Your task to perform on an android device: Show me popular videos on Youtube Image 0: 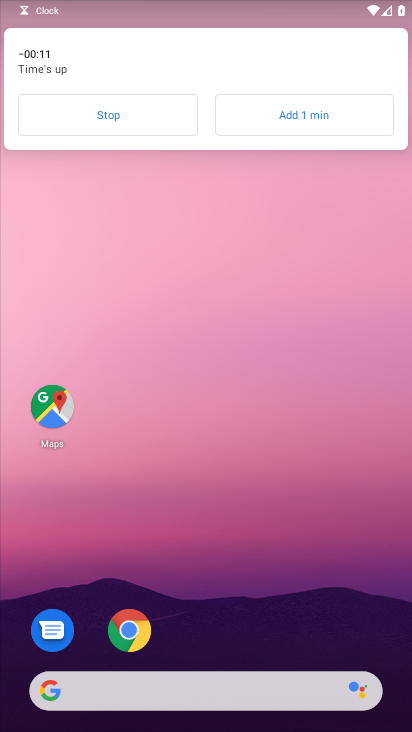
Step 0: click (138, 95)
Your task to perform on an android device: Show me popular videos on Youtube Image 1: 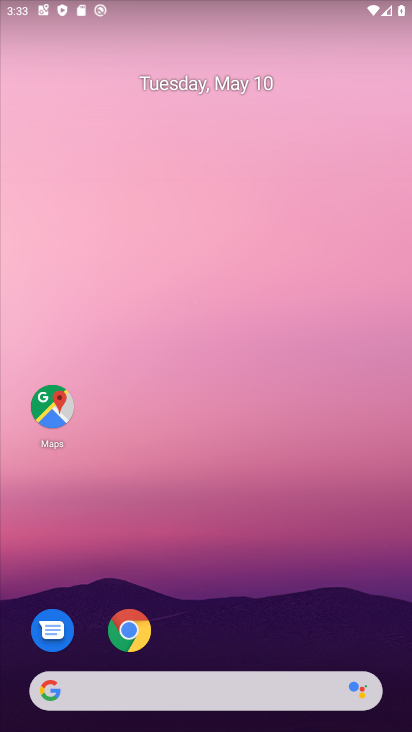
Step 1: drag from (203, 648) to (312, 116)
Your task to perform on an android device: Show me popular videos on Youtube Image 2: 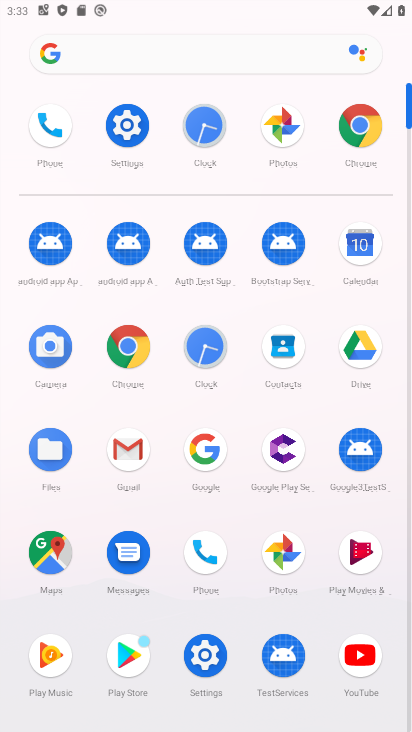
Step 2: click (364, 661)
Your task to perform on an android device: Show me popular videos on Youtube Image 3: 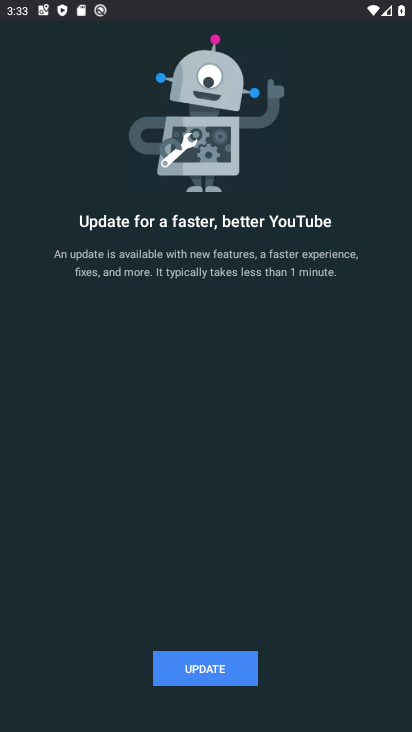
Step 3: click (253, 667)
Your task to perform on an android device: Show me popular videos on Youtube Image 4: 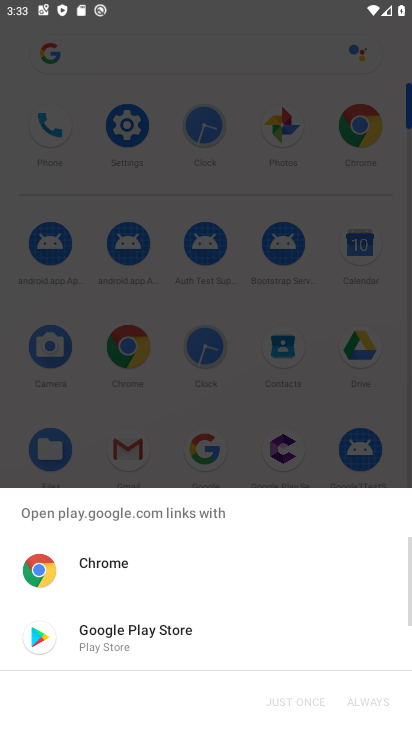
Step 4: click (188, 639)
Your task to perform on an android device: Show me popular videos on Youtube Image 5: 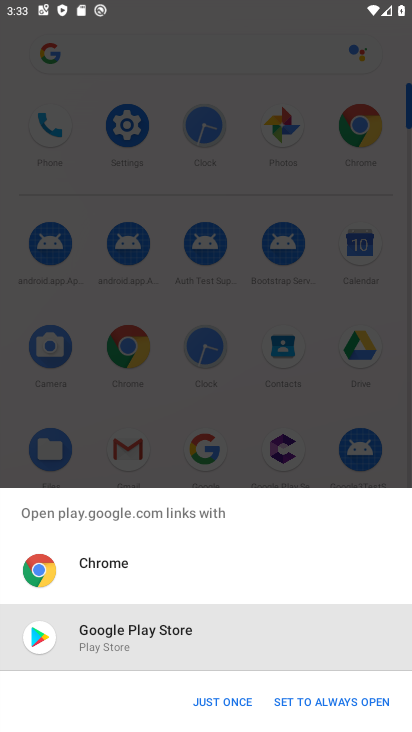
Step 5: click (234, 690)
Your task to perform on an android device: Show me popular videos on Youtube Image 6: 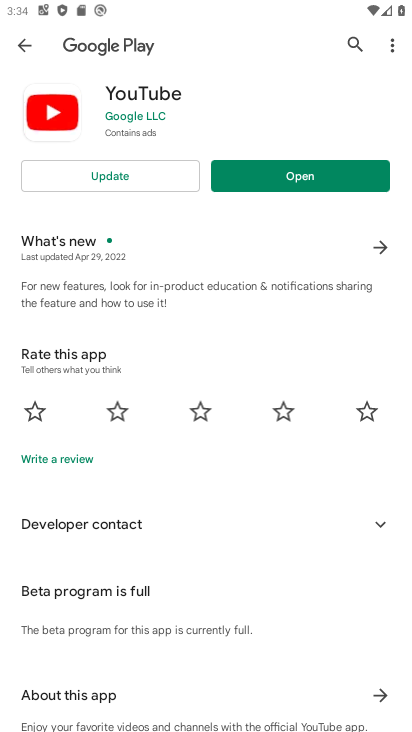
Step 6: drag from (126, 661) to (184, 400)
Your task to perform on an android device: Show me popular videos on Youtube Image 7: 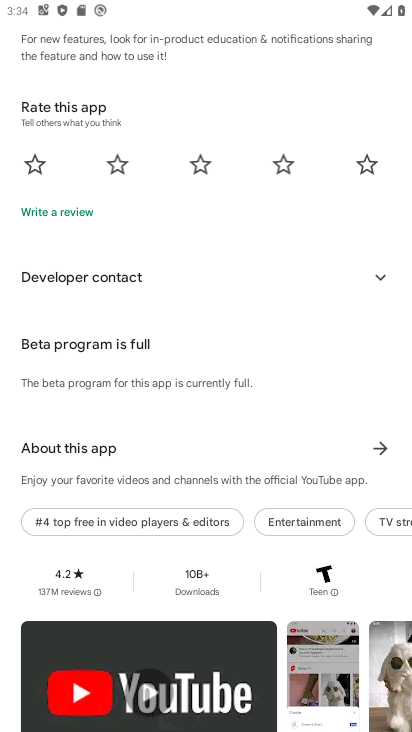
Step 7: drag from (154, 319) to (122, 720)
Your task to perform on an android device: Show me popular videos on Youtube Image 8: 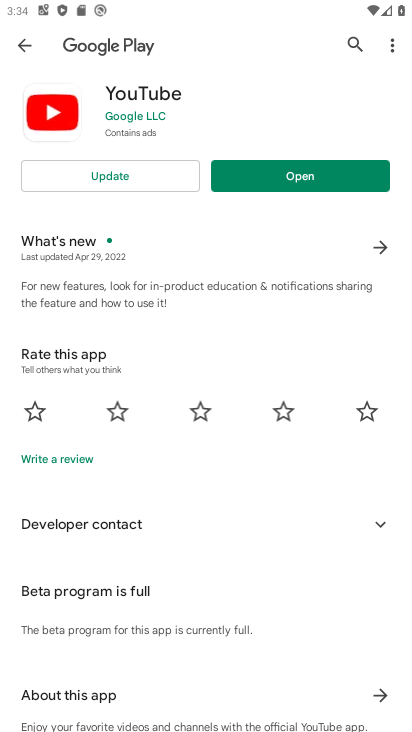
Step 8: click (276, 183)
Your task to perform on an android device: Show me popular videos on Youtube Image 9: 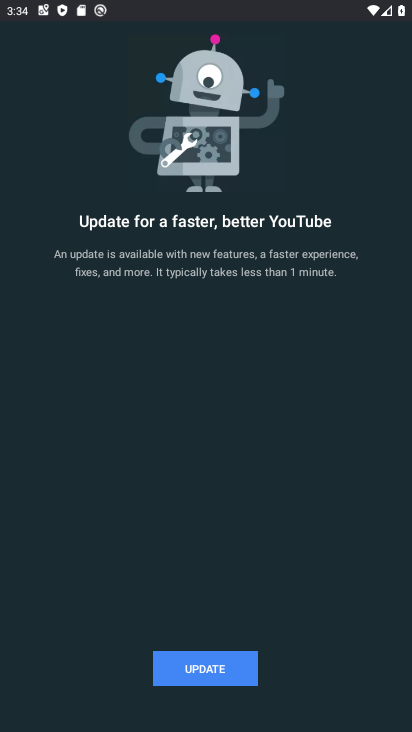
Step 9: click (226, 669)
Your task to perform on an android device: Show me popular videos on Youtube Image 10: 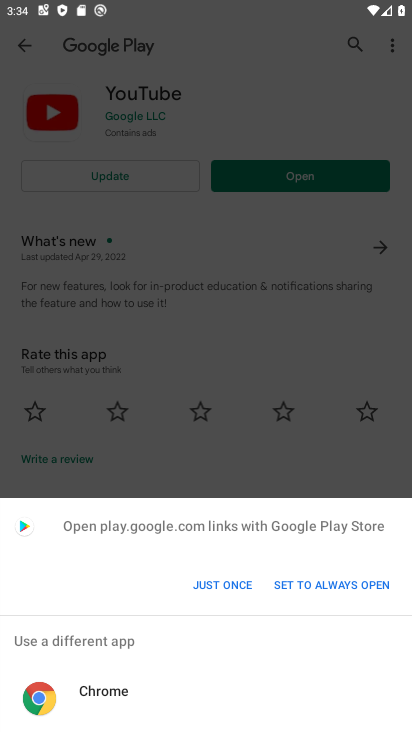
Step 10: click (224, 588)
Your task to perform on an android device: Show me popular videos on Youtube Image 11: 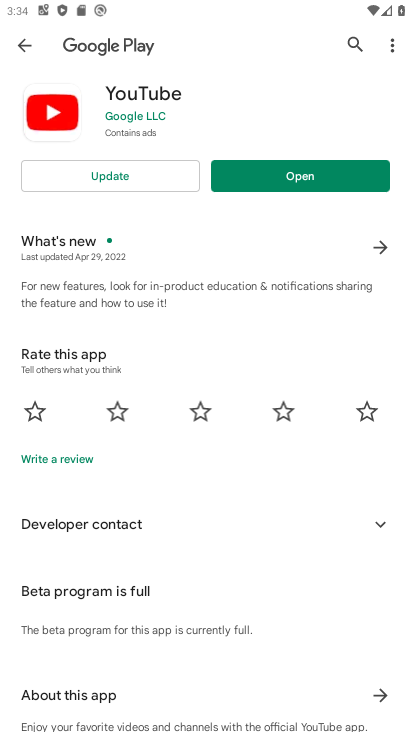
Step 11: click (272, 180)
Your task to perform on an android device: Show me popular videos on Youtube Image 12: 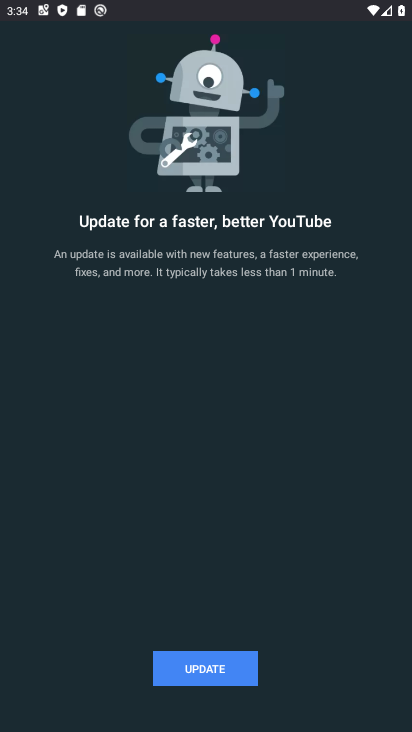
Step 12: click (201, 665)
Your task to perform on an android device: Show me popular videos on Youtube Image 13: 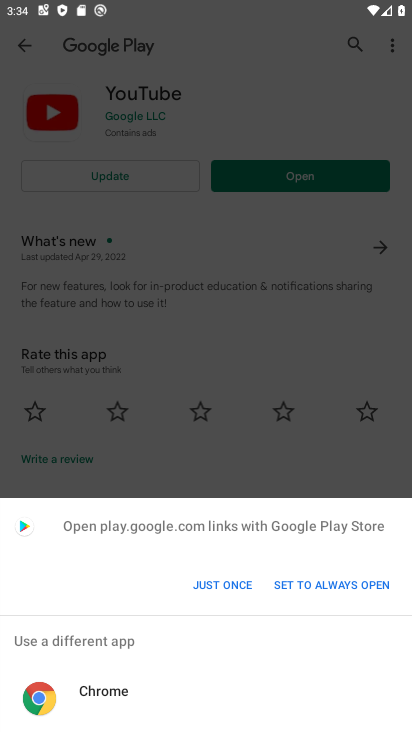
Step 13: click (216, 567)
Your task to perform on an android device: Show me popular videos on Youtube Image 14: 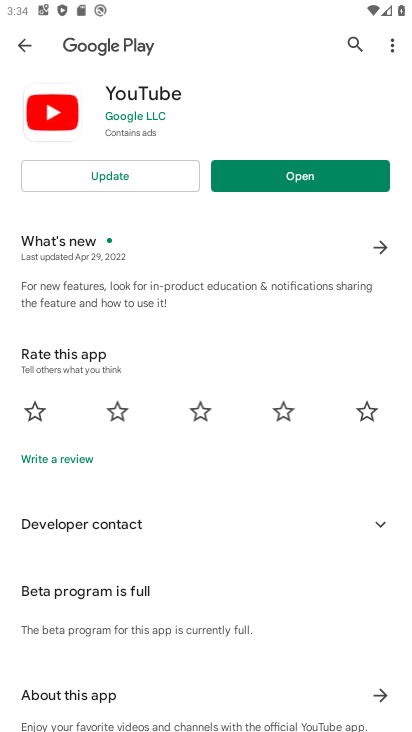
Step 14: click (109, 175)
Your task to perform on an android device: Show me popular videos on Youtube Image 15: 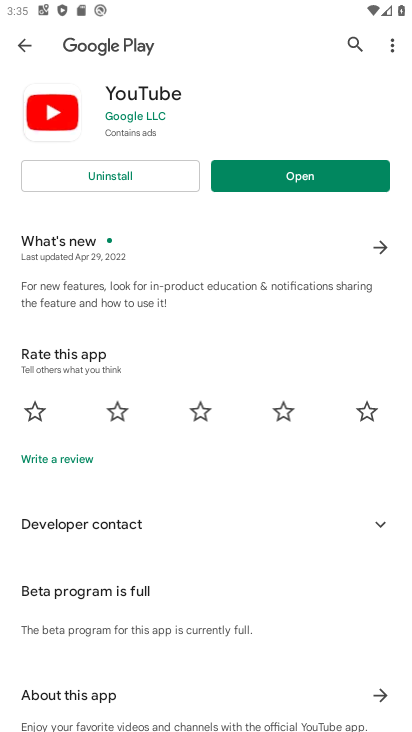
Step 15: click (280, 185)
Your task to perform on an android device: Show me popular videos on Youtube Image 16: 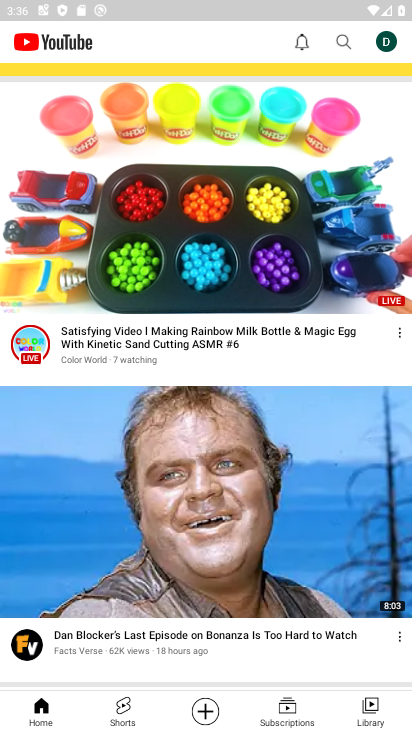
Step 16: drag from (128, 152) to (122, 597)
Your task to perform on an android device: Show me popular videos on Youtube Image 17: 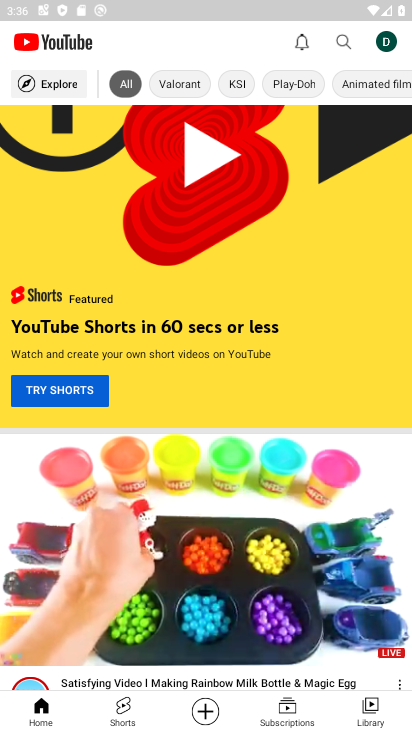
Step 17: click (52, 89)
Your task to perform on an android device: Show me popular videos on Youtube Image 18: 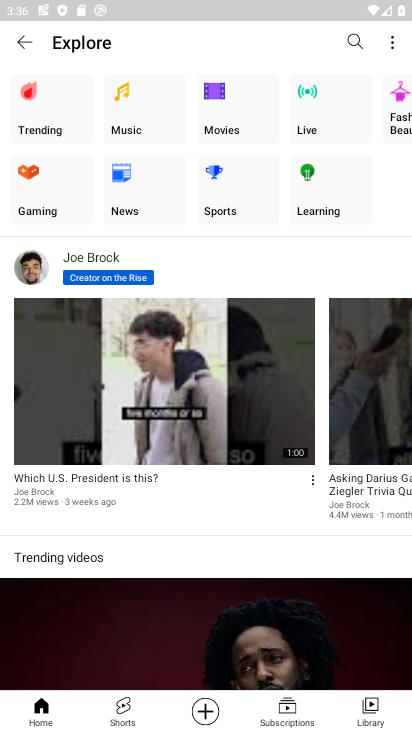
Step 18: click (48, 80)
Your task to perform on an android device: Show me popular videos on Youtube Image 19: 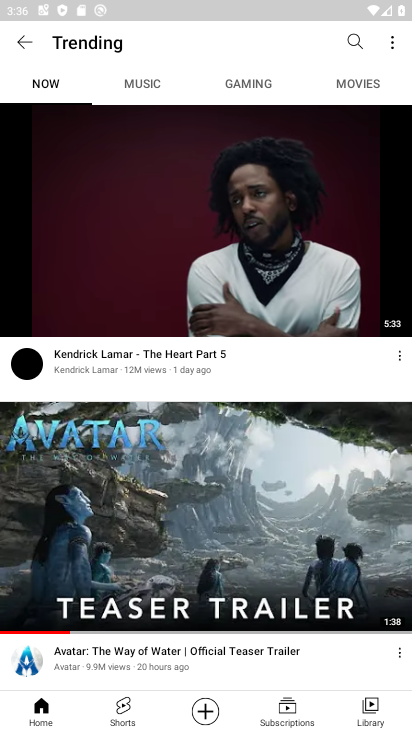
Step 19: task complete